Your task to perform on an android device: Open the calendar and show me this week's events? Image 0: 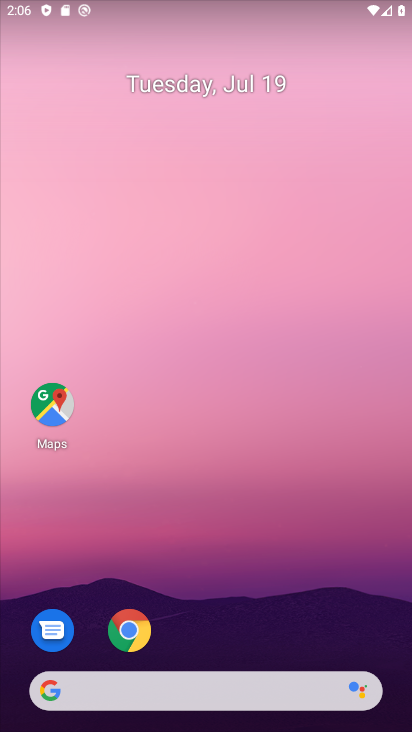
Step 0: drag from (264, 528) to (266, 103)
Your task to perform on an android device: Open the calendar and show me this week's events? Image 1: 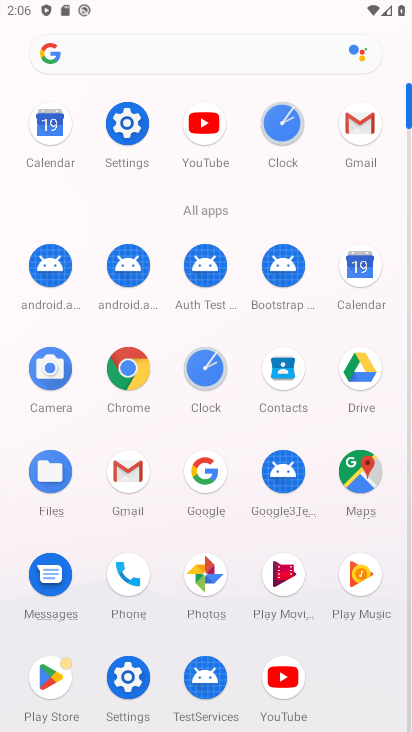
Step 1: click (53, 127)
Your task to perform on an android device: Open the calendar and show me this week's events? Image 2: 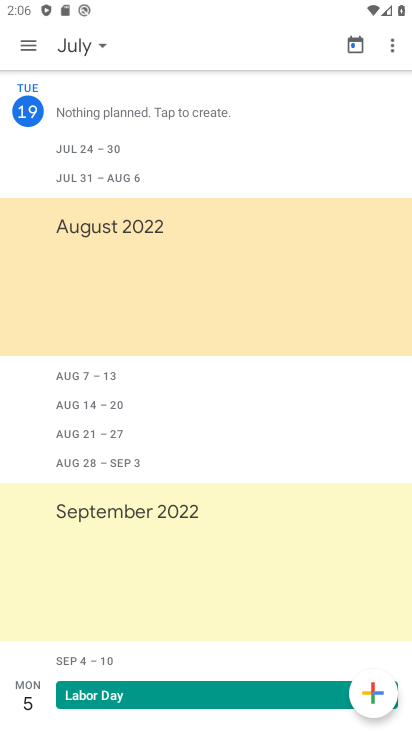
Step 2: click (34, 48)
Your task to perform on an android device: Open the calendar and show me this week's events? Image 3: 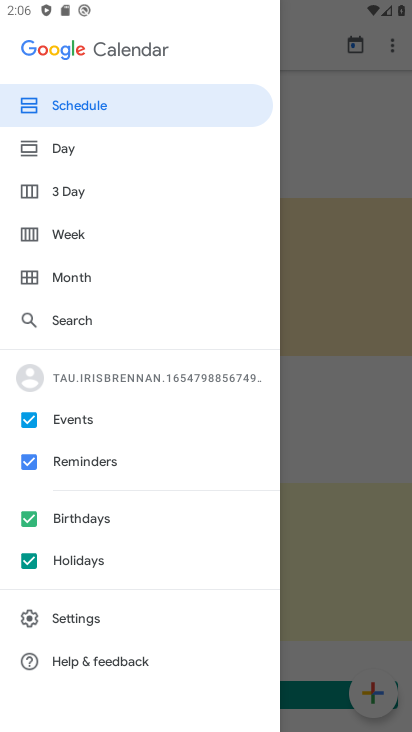
Step 3: click (26, 233)
Your task to perform on an android device: Open the calendar and show me this week's events? Image 4: 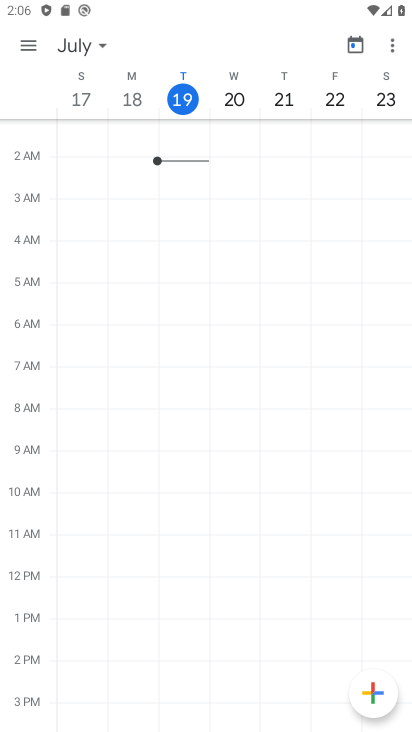
Step 4: task complete